Your task to perform on an android device: turn off improve location accuracy Image 0: 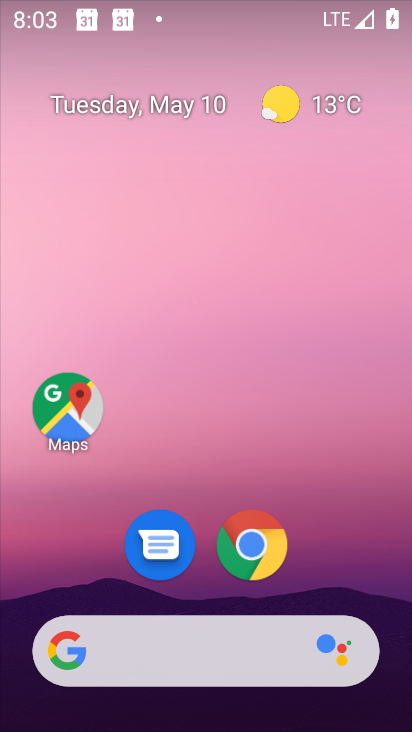
Step 0: press home button
Your task to perform on an android device: turn off improve location accuracy Image 1: 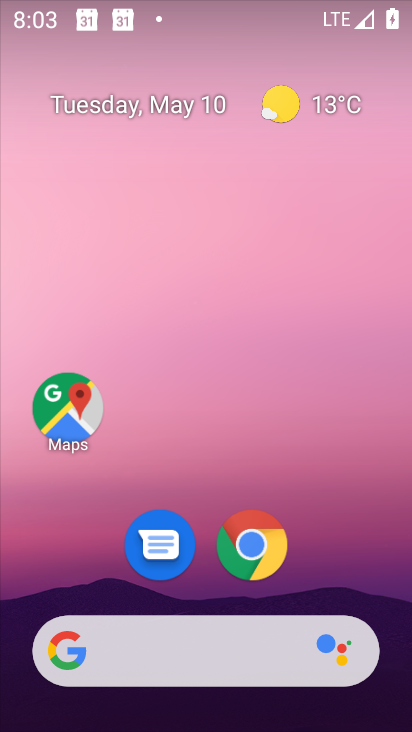
Step 1: drag from (217, 593) to (259, 156)
Your task to perform on an android device: turn off improve location accuracy Image 2: 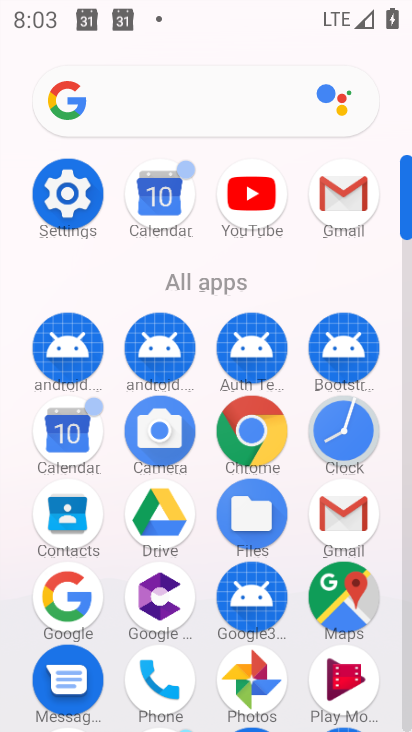
Step 2: click (64, 186)
Your task to perform on an android device: turn off improve location accuracy Image 3: 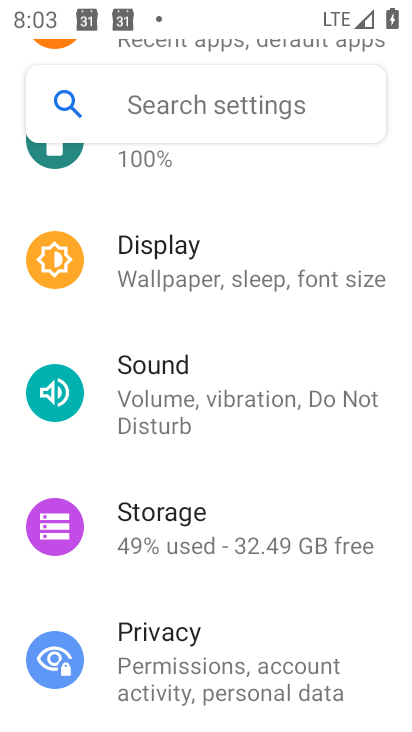
Step 3: drag from (202, 589) to (217, 329)
Your task to perform on an android device: turn off improve location accuracy Image 4: 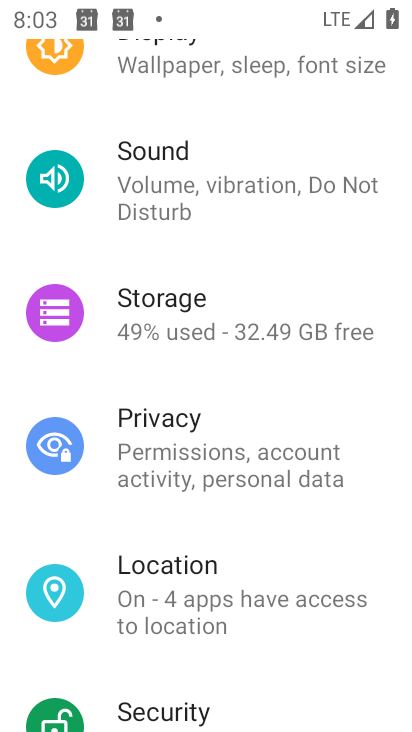
Step 4: click (98, 580)
Your task to perform on an android device: turn off improve location accuracy Image 5: 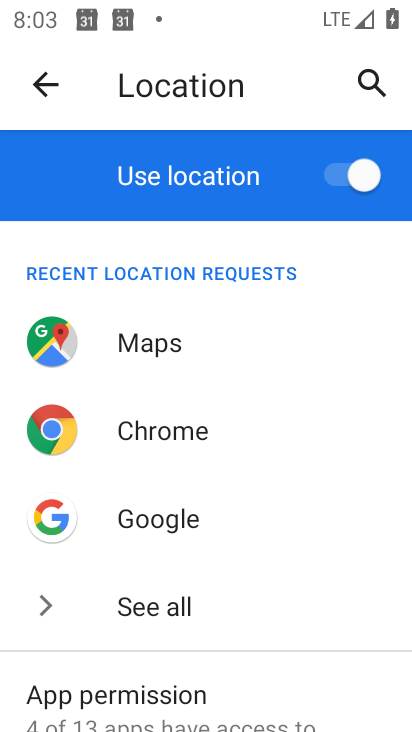
Step 5: drag from (214, 680) to (211, 203)
Your task to perform on an android device: turn off improve location accuracy Image 6: 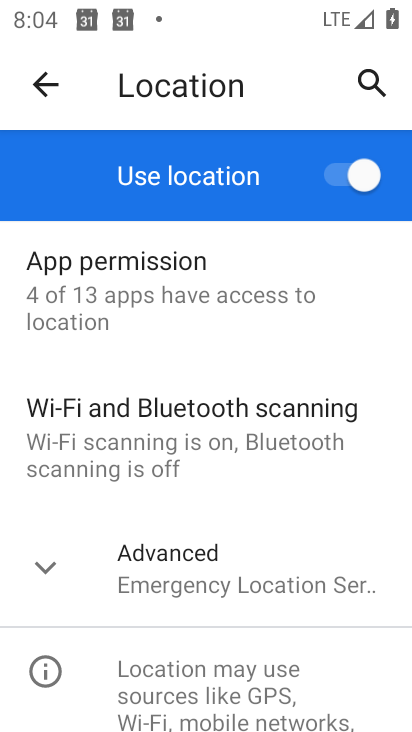
Step 6: click (48, 561)
Your task to perform on an android device: turn off improve location accuracy Image 7: 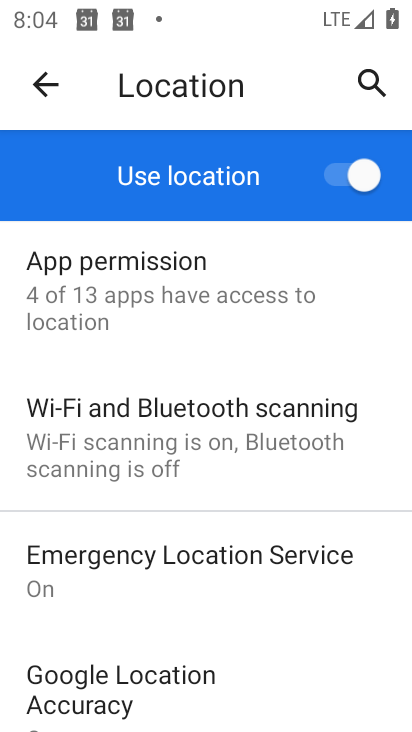
Step 7: click (155, 698)
Your task to perform on an android device: turn off improve location accuracy Image 8: 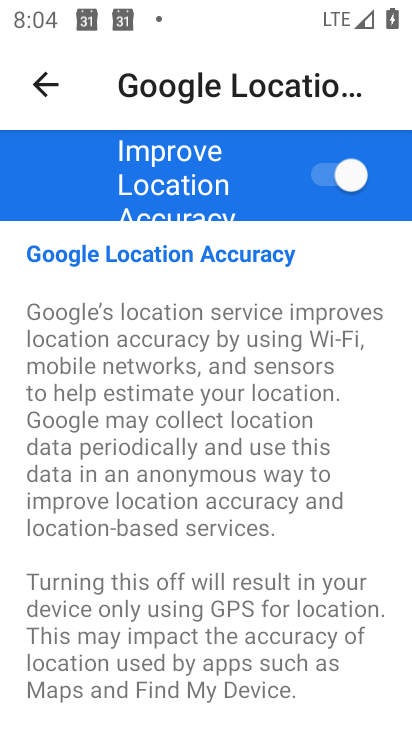
Step 8: click (320, 177)
Your task to perform on an android device: turn off improve location accuracy Image 9: 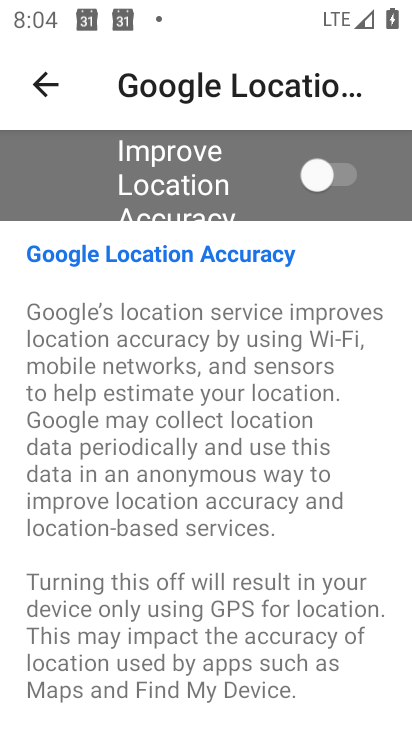
Step 9: task complete